Your task to perform on an android device: Search for Mexican restaurants on Maps Image 0: 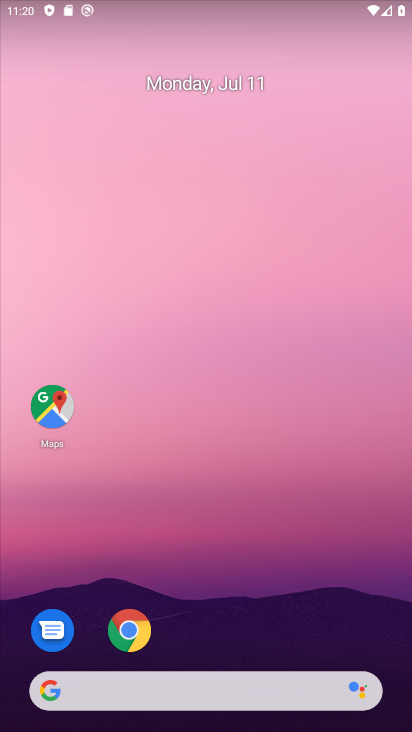
Step 0: drag from (223, 640) to (236, 170)
Your task to perform on an android device: Search for Mexican restaurants on Maps Image 1: 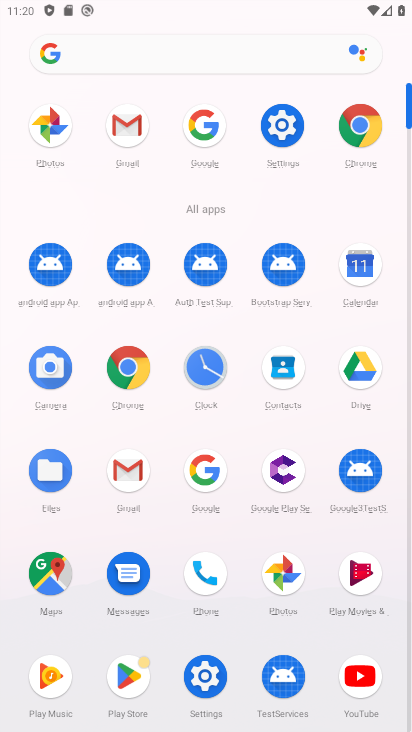
Step 1: click (46, 578)
Your task to perform on an android device: Search for Mexican restaurants on Maps Image 2: 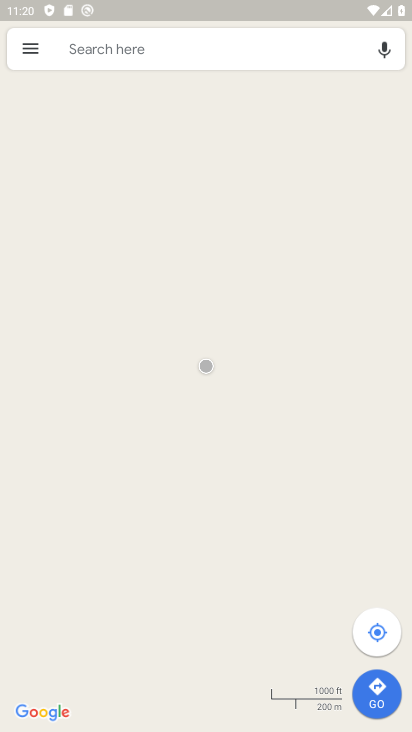
Step 2: click (220, 48)
Your task to perform on an android device: Search for Mexican restaurants on Maps Image 3: 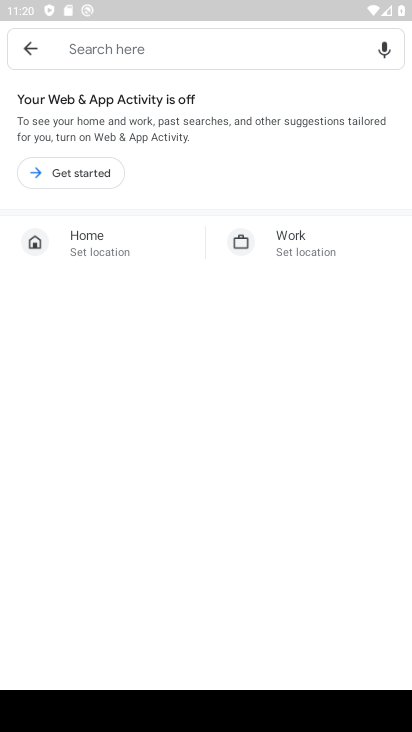
Step 3: click (87, 170)
Your task to perform on an android device: Search for Mexican restaurants on Maps Image 4: 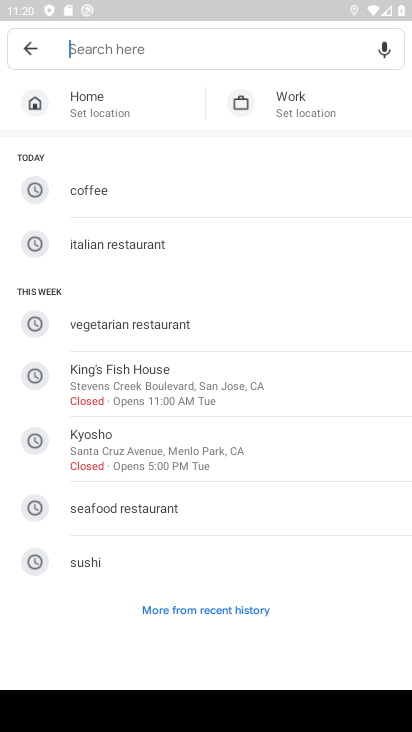
Step 4: type "mexican restaurent"
Your task to perform on an android device: Search for Mexican restaurants on Maps Image 5: 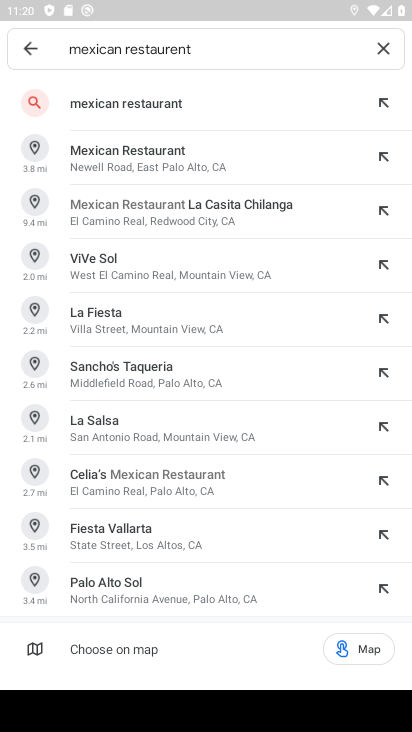
Step 5: click (143, 113)
Your task to perform on an android device: Search for Mexican restaurants on Maps Image 6: 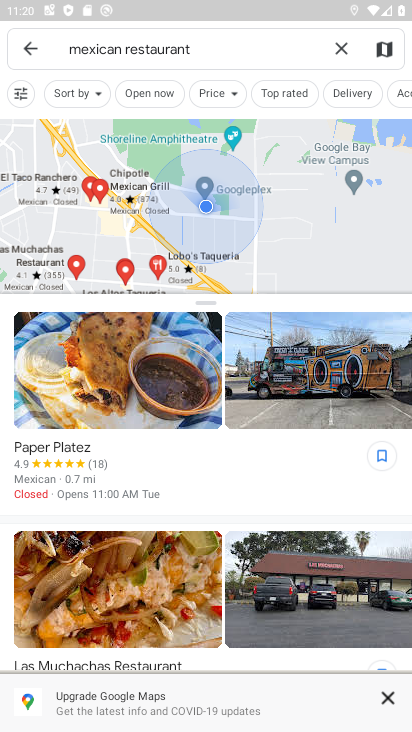
Step 6: task complete